Your task to perform on an android device: delete location history Image 0: 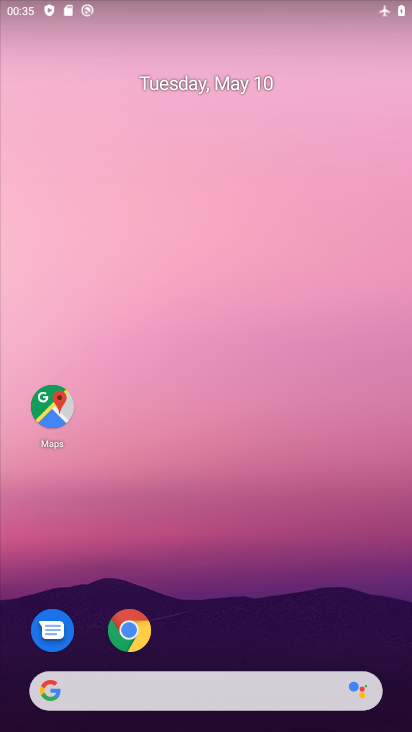
Step 0: drag from (217, 727) to (220, 323)
Your task to perform on an android device: delete location history Image 1: 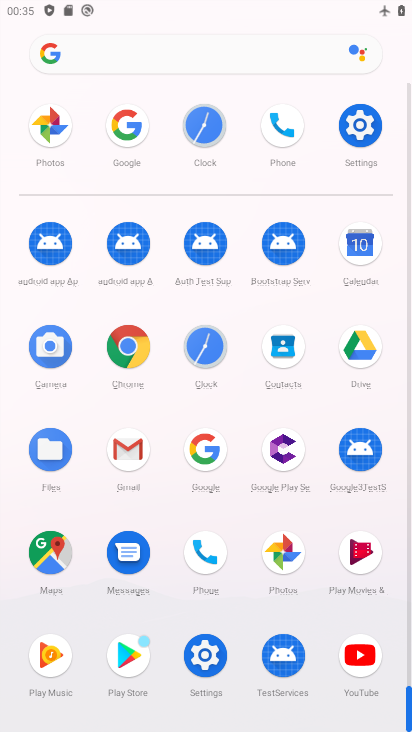
Step 1: click (45, 547)
Your task to perform on an android device: delete location history Image 2: 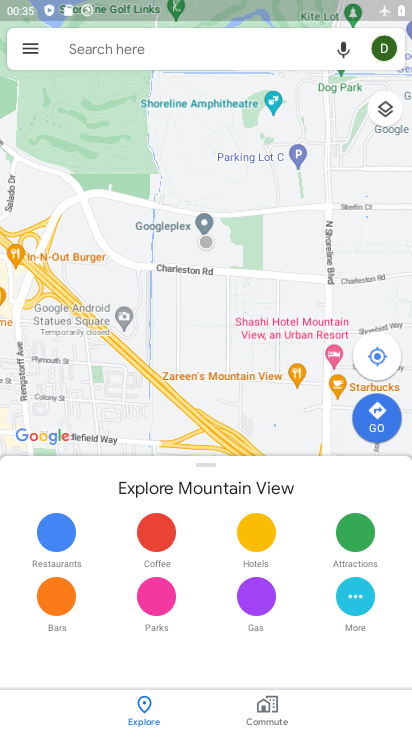
Step 2: click (29, 51)
Your task to perform on an android device: delete location history Image 3: 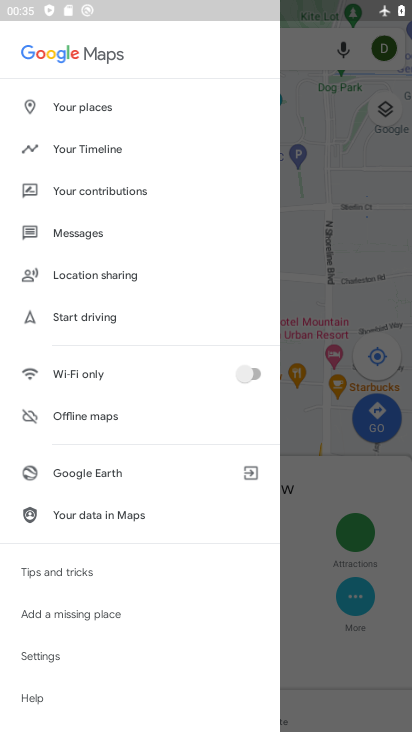
Step 3: drag from (71, 672) to (70, 502)
Your task to perform on an android device: delete location history Image 4: 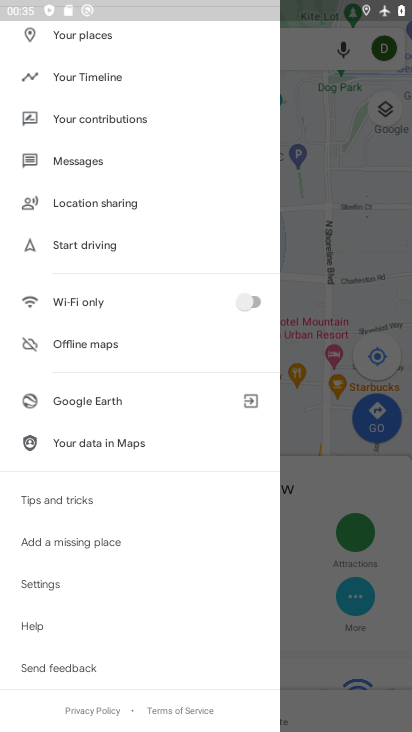
Step 4: click (95, 71)
Your task to perform on an android device: delete location history Image 5: 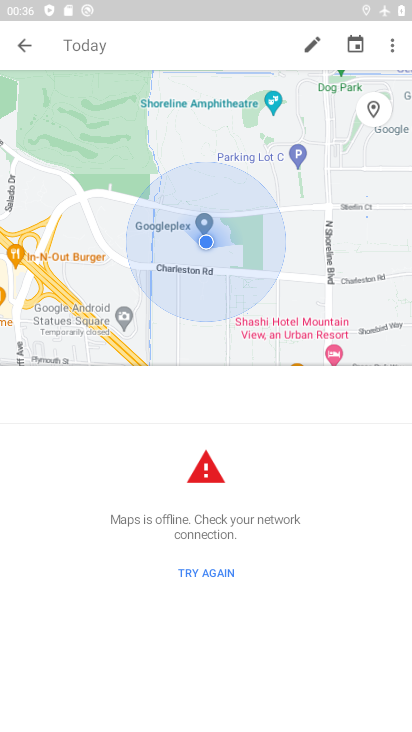
Step 5: click (393, 42)
Your task to perform on an android device: delete location history Image 6: 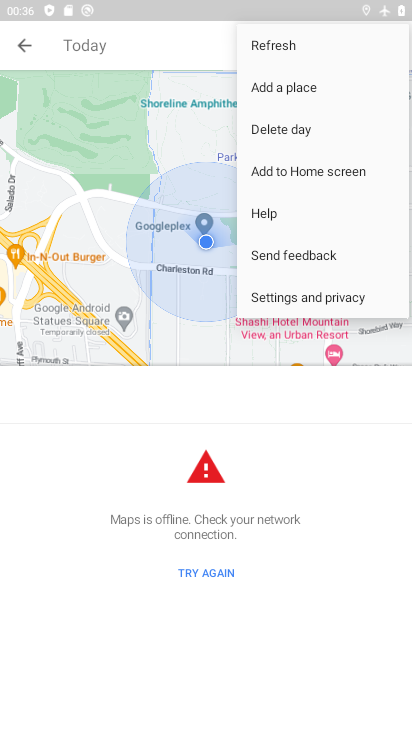
Step 6: click (302, 293)
Your task to perform on an android device: delete location history Image 7: 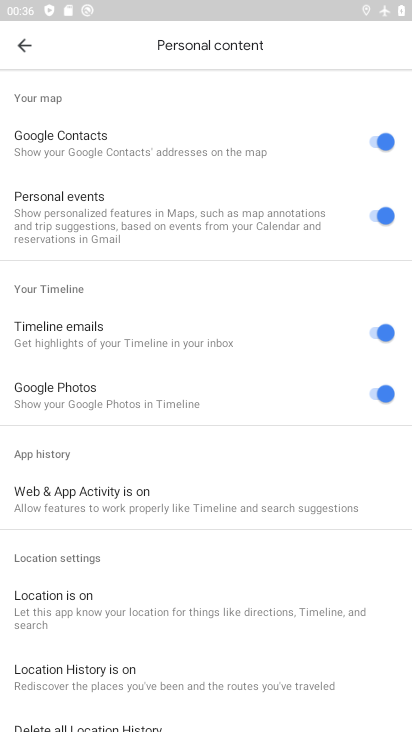
Step 7: drag from (155, 695) to (158, 350)
Your task to perform on an android device: delete location history Image 8: 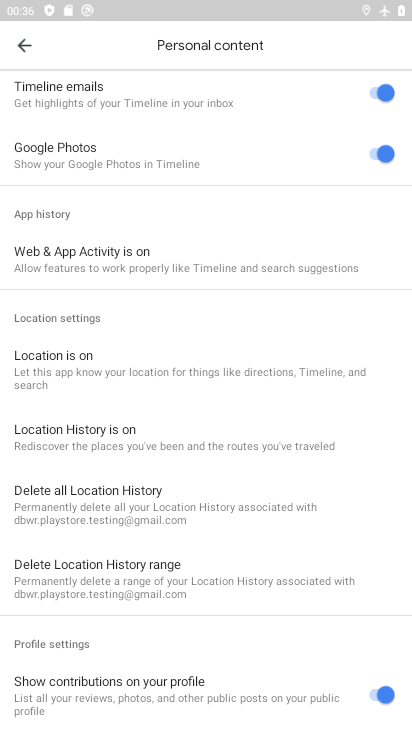
Step 8: click (107, 492)
Your task to perform on an android device: delete location history Image 9: 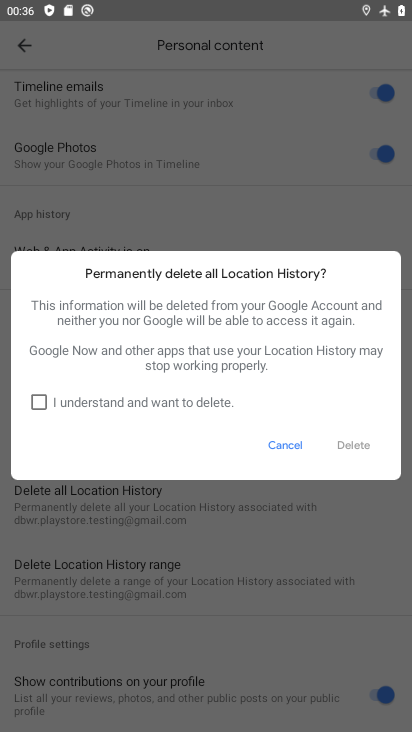
Step 9: click (34, 395)
Your task to perform on an android device: delete location history Image 10: 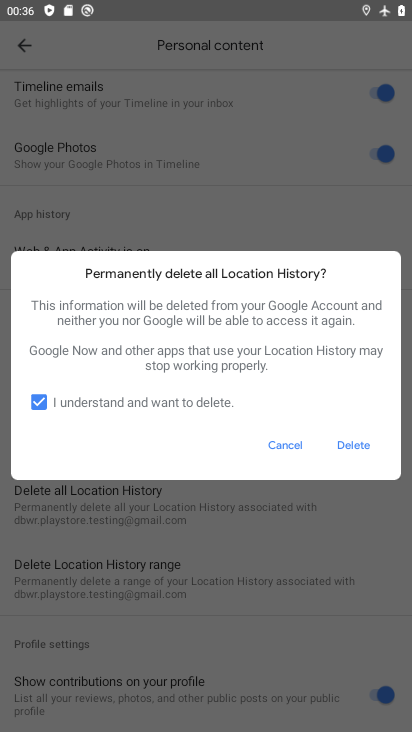
Step 10: click (360, 444)
Your task to perform on an android device: delete location history Image 11: 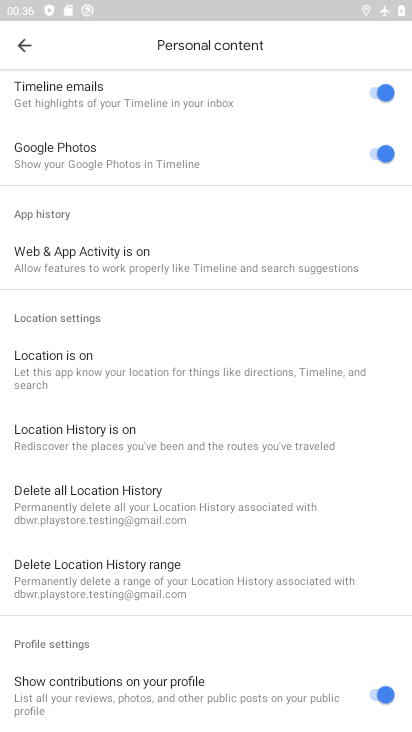
Step 11: task complete